Your task to perform on an android device: Go to accessibility settings Image 0: 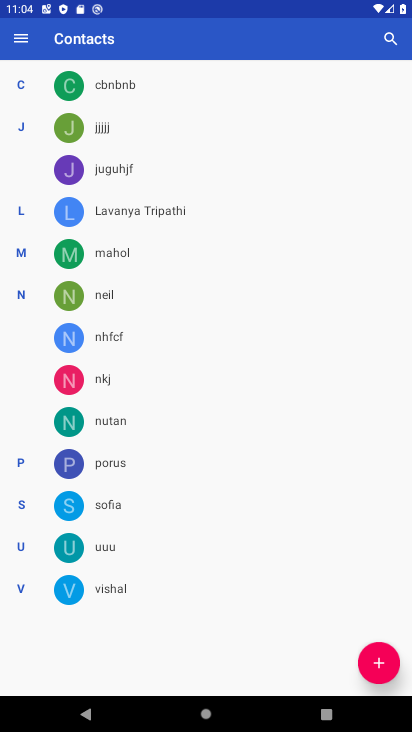
Step 0: press home button
Your task to perform on an android device: Go to accessibility settings Image 1: 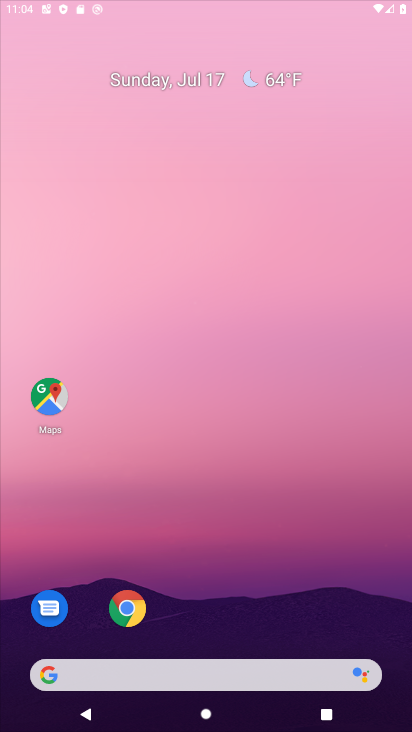
Step 1: drag from (369, 579) to (16, 0)
Your task to perform on an android device: Go to accessibility settings Image 2: 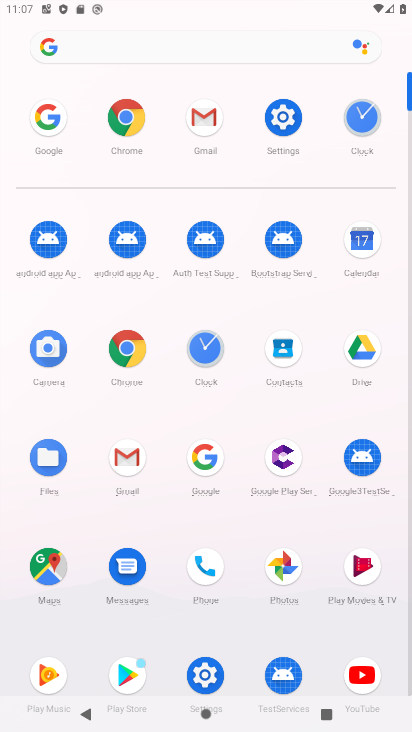
Step 2: click (294, 114)
Your task to perform on an android device: Go to accessibility settings Image 3: 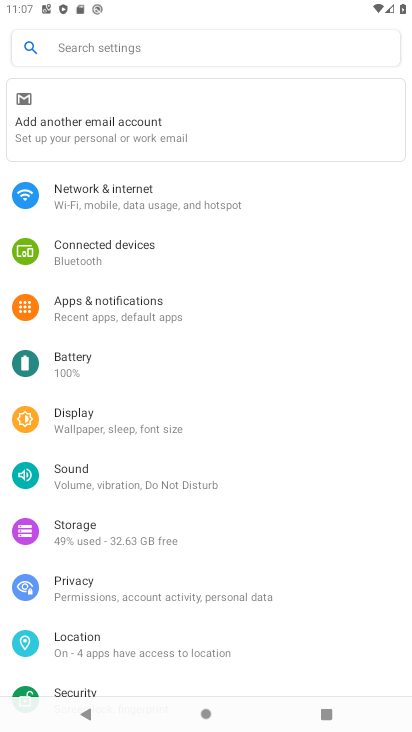
Step 3: drag from (117, 629) to (135, 148)
Your task to perform on an android device: Go to accessibility settings Image 4: 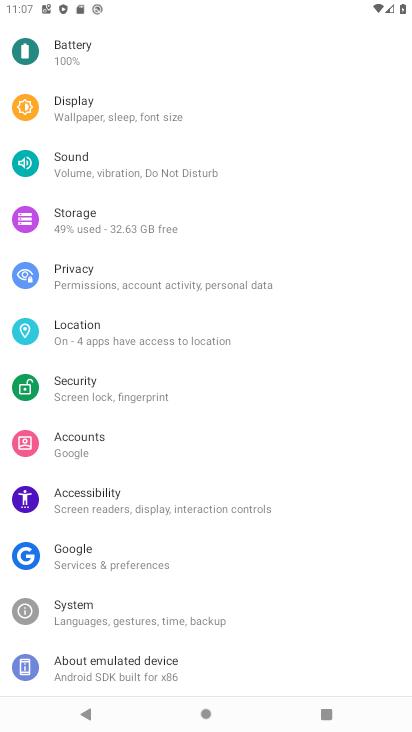
Step 4: click (114, 494)
Your task to perform on an android device: Go to accessibility settings Image 5: 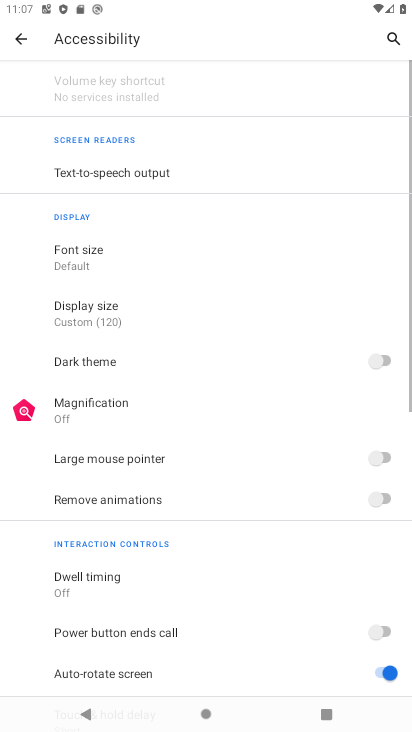
Step 5: task complete